Your task to perform on an android device: delete the emails in spam in the gmail app Image 0: 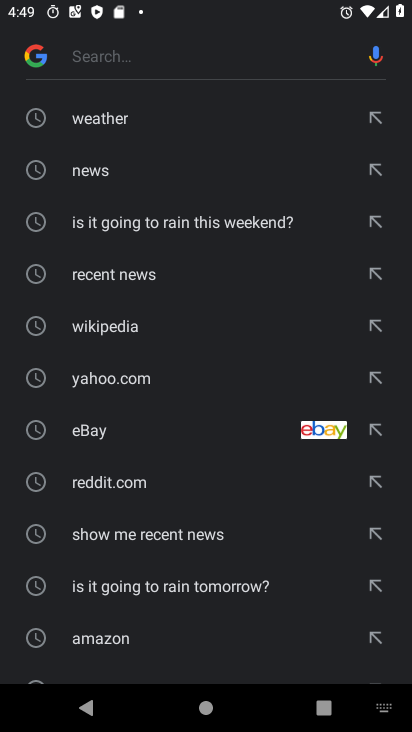
Step 0: press home button
Your task to perform on an android device: delete the emails in spam in the gmail app Image 1: 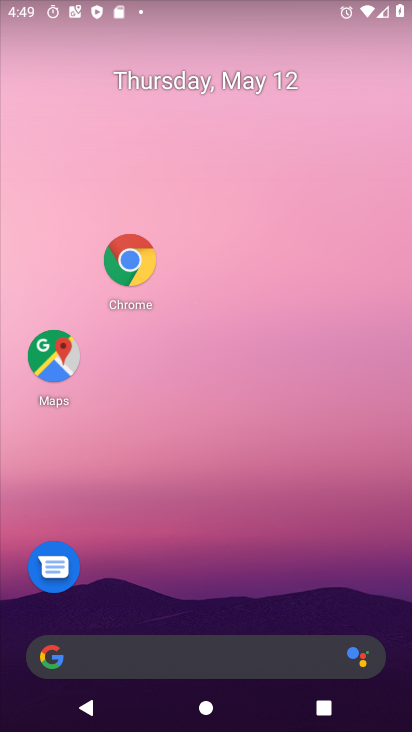
Step 1: drag from (190, 639) to (195, 227)
Your task to perform on an android device: delete the emails in spam in the gmail app Image 2: 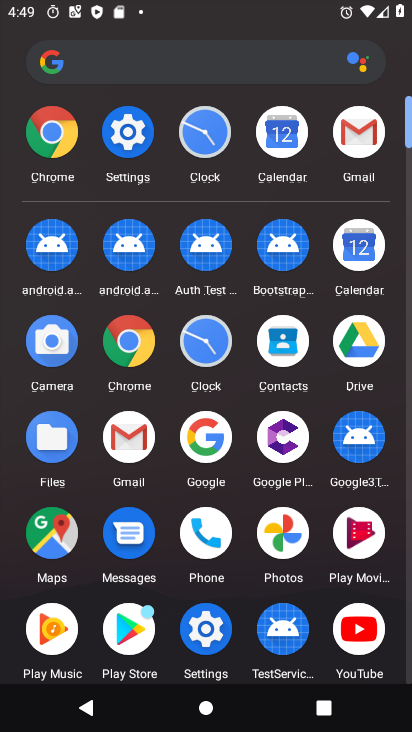
Step 2: click (146, 441)
Your task to perform on an android device: delete the emails in spam in the gmail app Image 3: 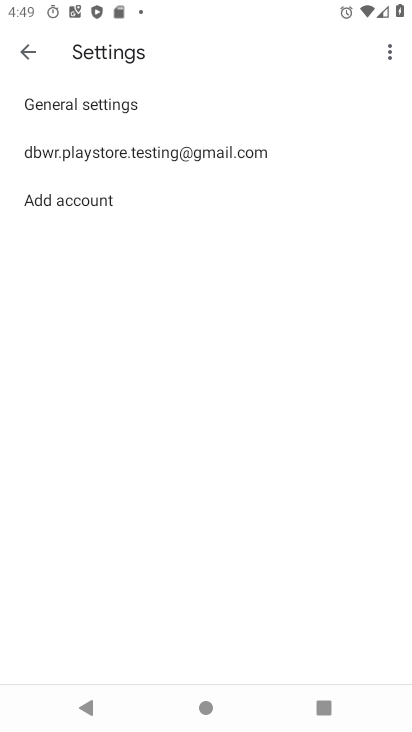
Step 3: click (26, 62)
Your task to perform on an android device: delete the emails in spam in the gmail app Image 4: 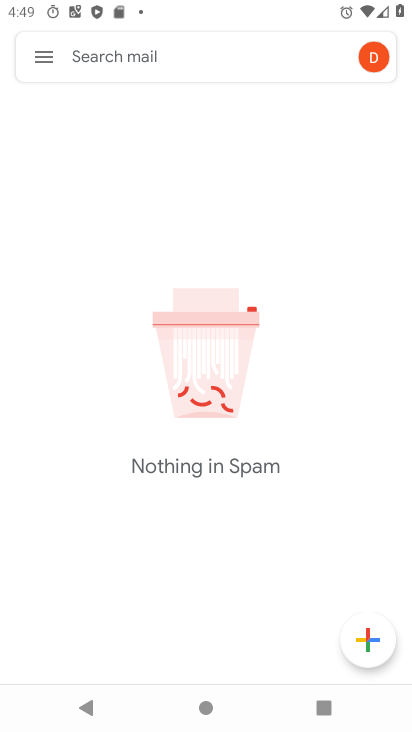
Step 4: click (56, 48)
Your task to perform on an android device: delete the emails in spam in the gmail app Image 5: 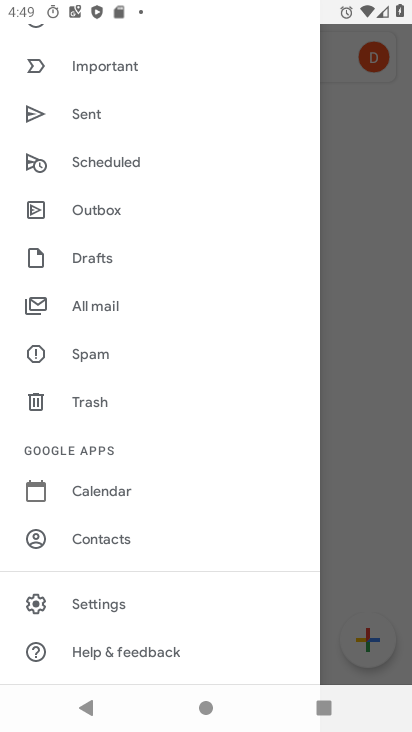
Step 5: click (361, 283)
Your task to perform on an android device: delete the emails in spam in the gmail app Image 6: 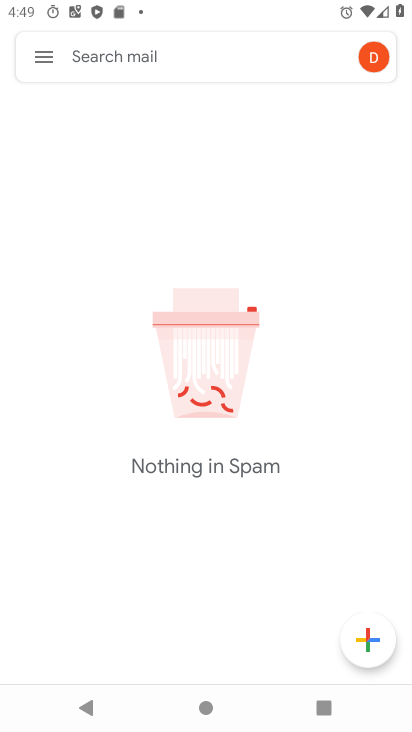
Step 6: click (40, 55)
Your task to perform on an android device: delete the emails in spam in the gmail app Image 7: 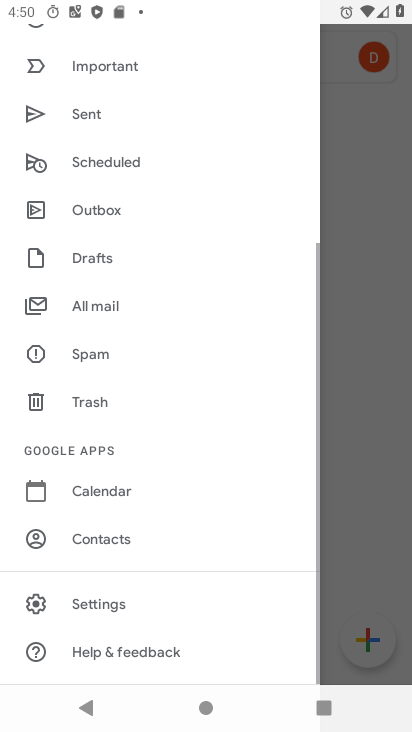
Step 7: task complete